Your task to perform on an android device: check data usage Image 0: 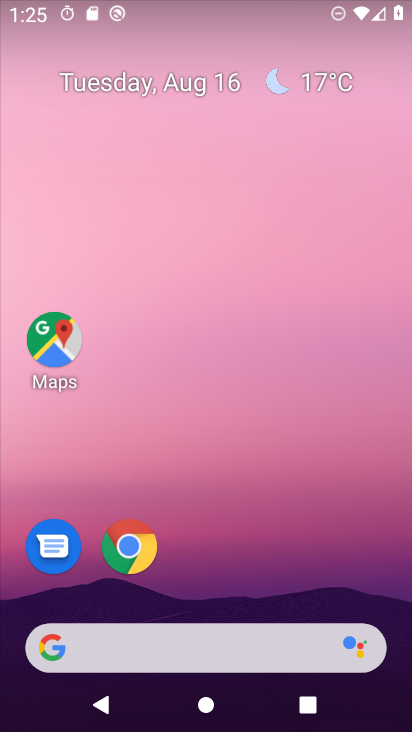
Step 0: drag from (219, 610) to (155, 130)
Your task to perform on an android device: check data usage Image 1: 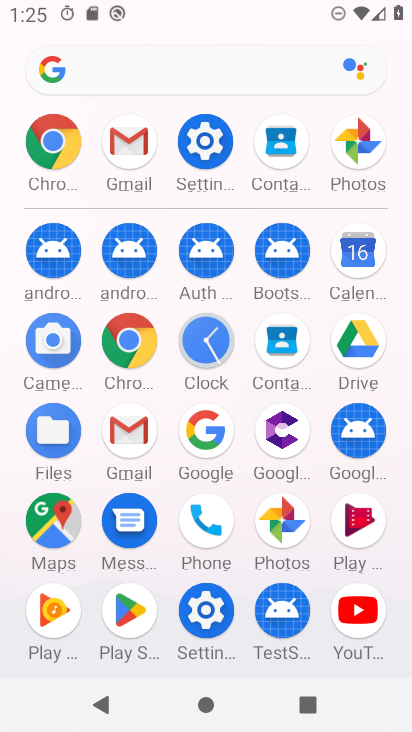
Step 1: click (195, 135)
Your task to perform on an android device: check data usage Image 2: 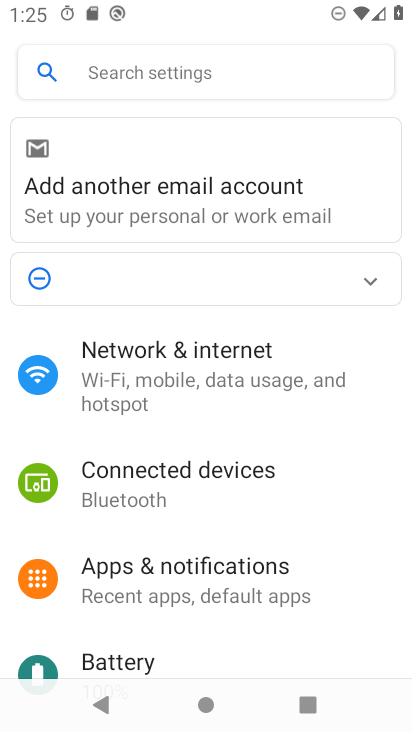
Step 2: click (113, 393)
Your task to perform on an android device: check data usage Image 3: 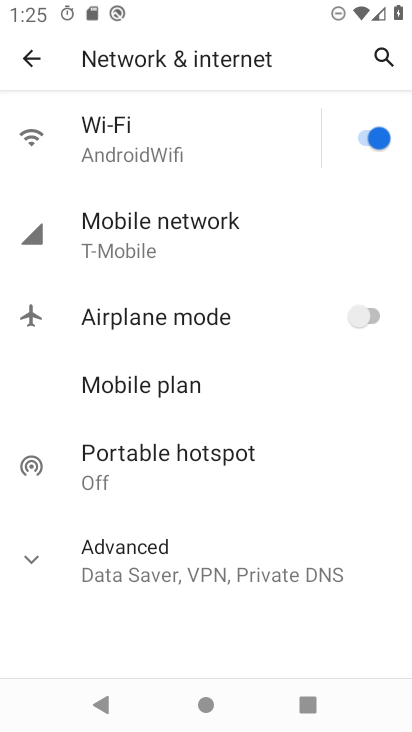
Step 3: click (103, 235)
Your task to perform on an android device: check data usage Image 4: 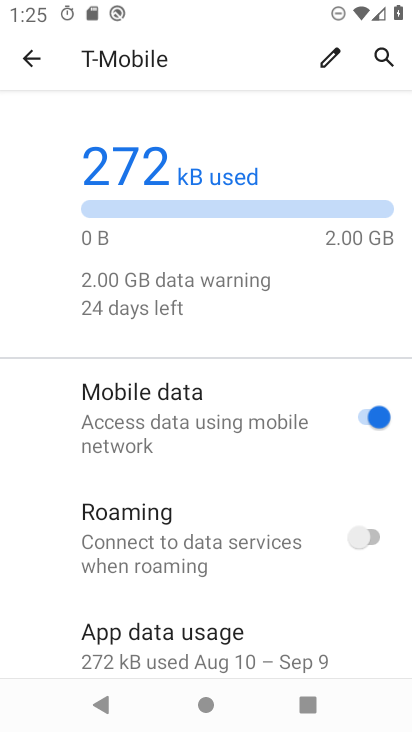
Step 4: click (164, 627)
Your task to perform on an android device: check data usage Image 5: 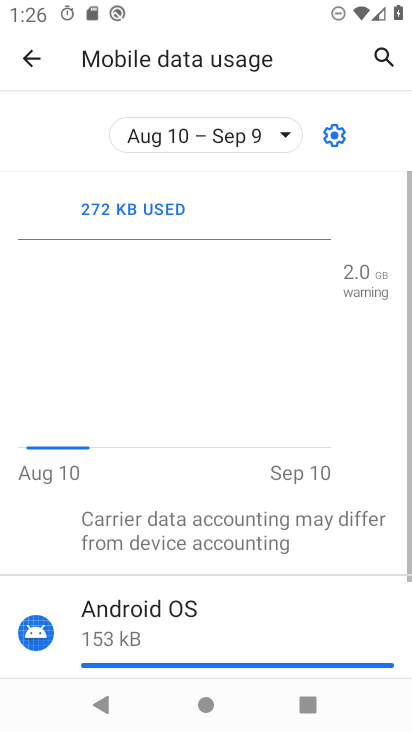
Step 5: task complete